Your task to perform on an android device: What's the weather going to be this weekend? Image 0: 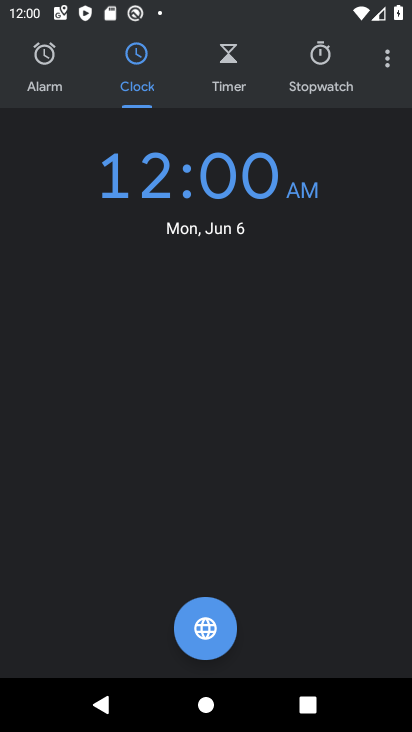
Step 0: press home button
Your task to perform on an android device: What's the weather going to be this weekend? Image 1: 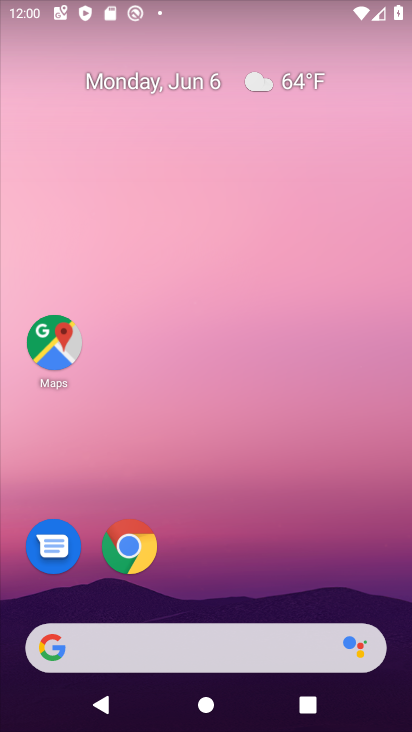
Step 1: click (124, 558)
Your task to perform on an android device: What's the weather going to be this weekend? Image 2: 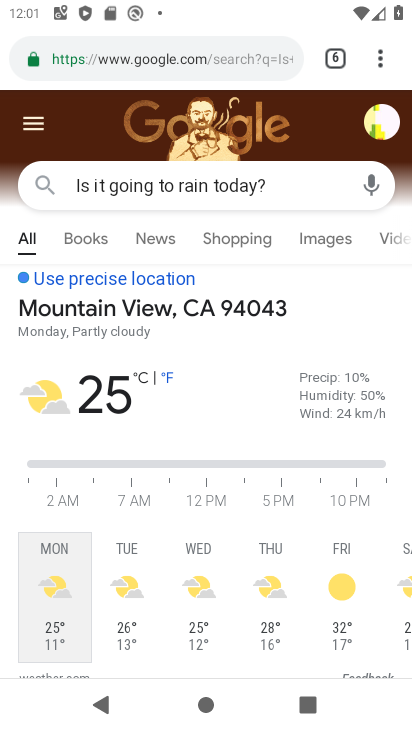
Step 2: click (369, 49)
Your task to perform on an android device: What's the weather going to be this weekend? Image 3: 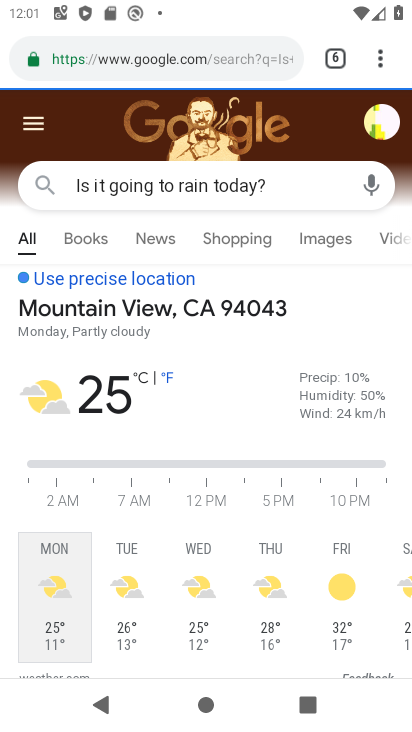
Step 3: click (369, 57)
Your task to perform on an android device: What's the weather going to be this weekend? Image 4: 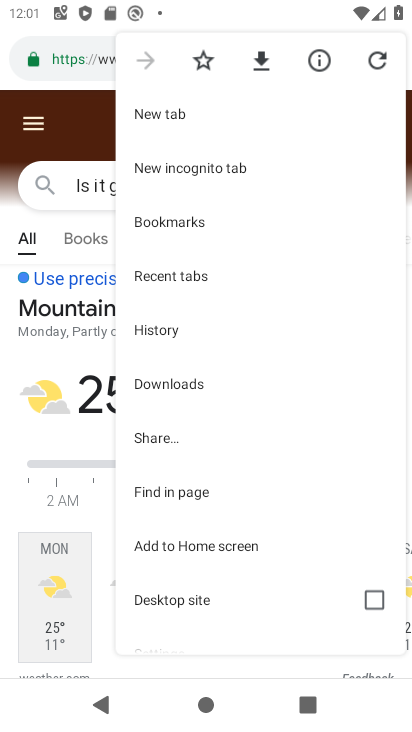
Step 4: click (199, 110)
Your task to perform on an android device: What's the weather going to be this weekend? Image 5: 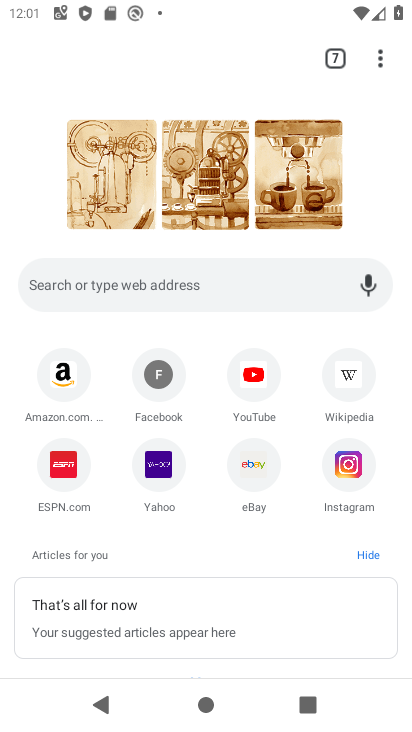
Step 5: click (63, 272)
Your task to perform on an android device: What's the weather going to be this weekend? Image 6: 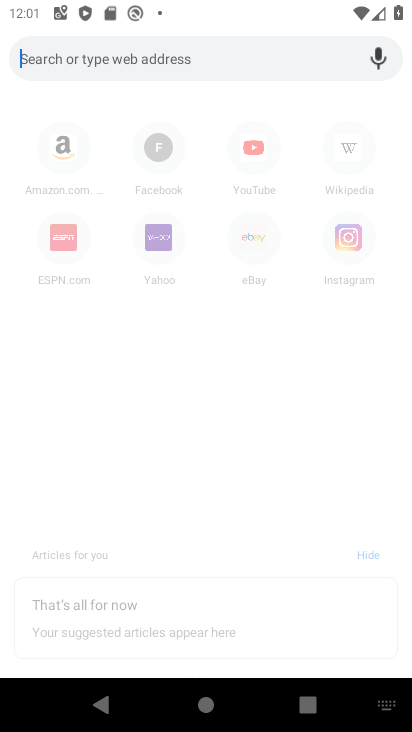
Step 6: type "What's the weather going to be this weekend?"
Your task to perform on an android device: What's the weather going to be this weekend? Image 7: 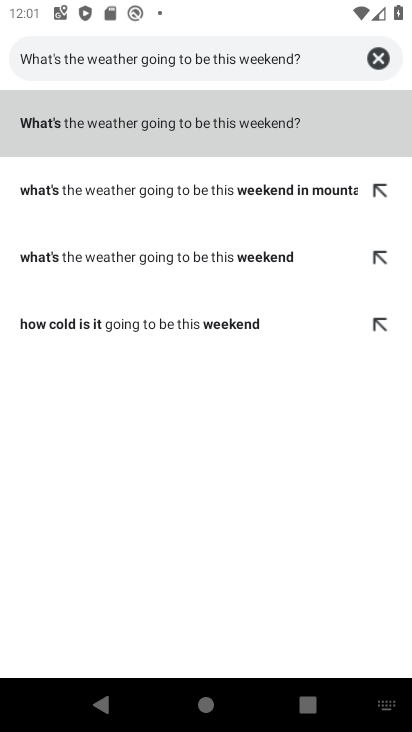
Step 7: click (179, 122)
Your task to perform on an android device: What's the weather going to be this weekend? Image 8: 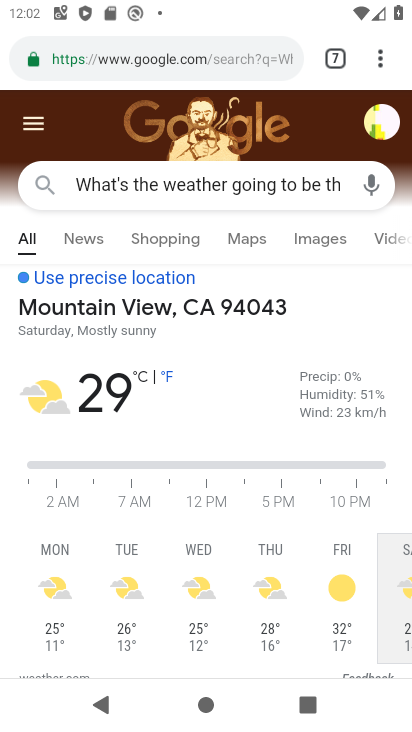
Step 8: task complete